Your task to perform on an android device: Go to Google maps Image 0: 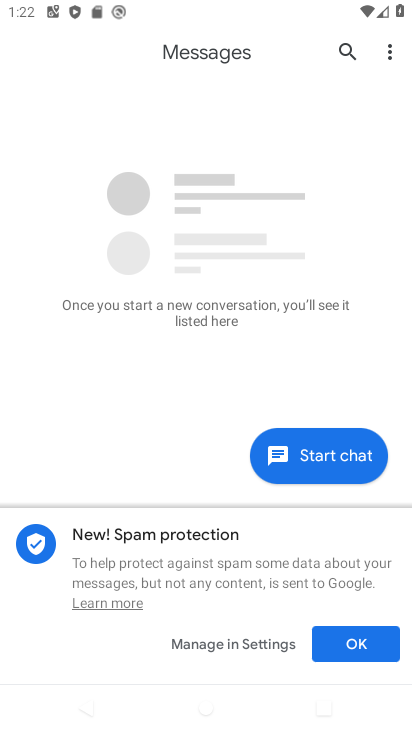
Step 0: press home button
Your task to perform on an android device: Go to Google maps Image 1: 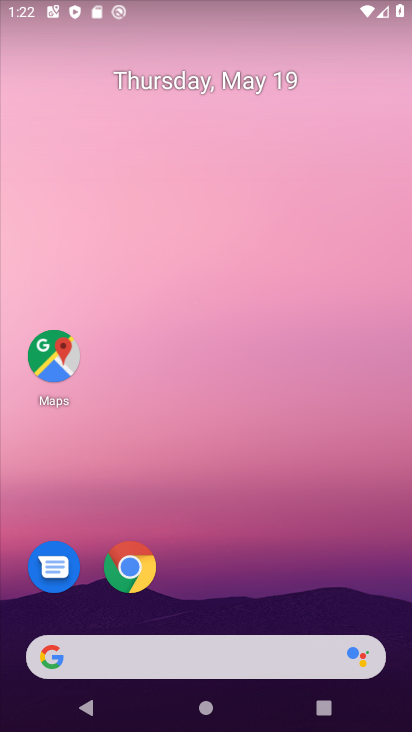
Step 1: click (36, 341)
Your task to perform on an android device: Go to Google maps Image 2: 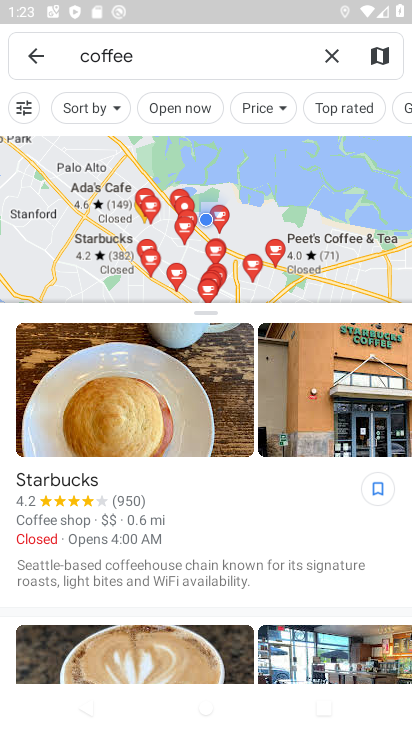
Step 2: click (337, 48)
Your task to perform on an android device: Go to Google maps Image 3: 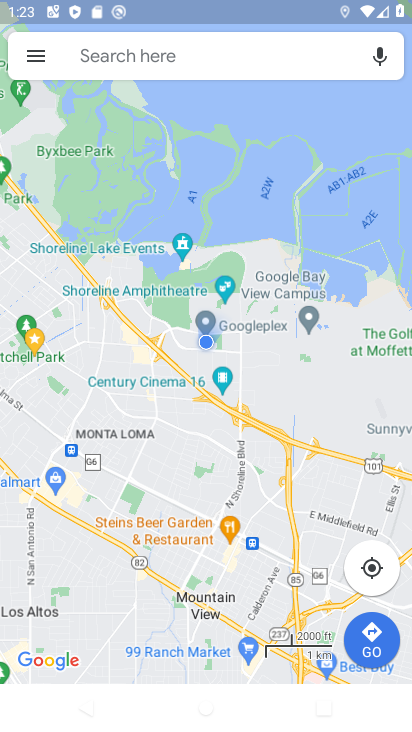
Step 3: task complete